Your task to perform on an android device: uninstall "Walmart Shopping & Grocery" Image 0: 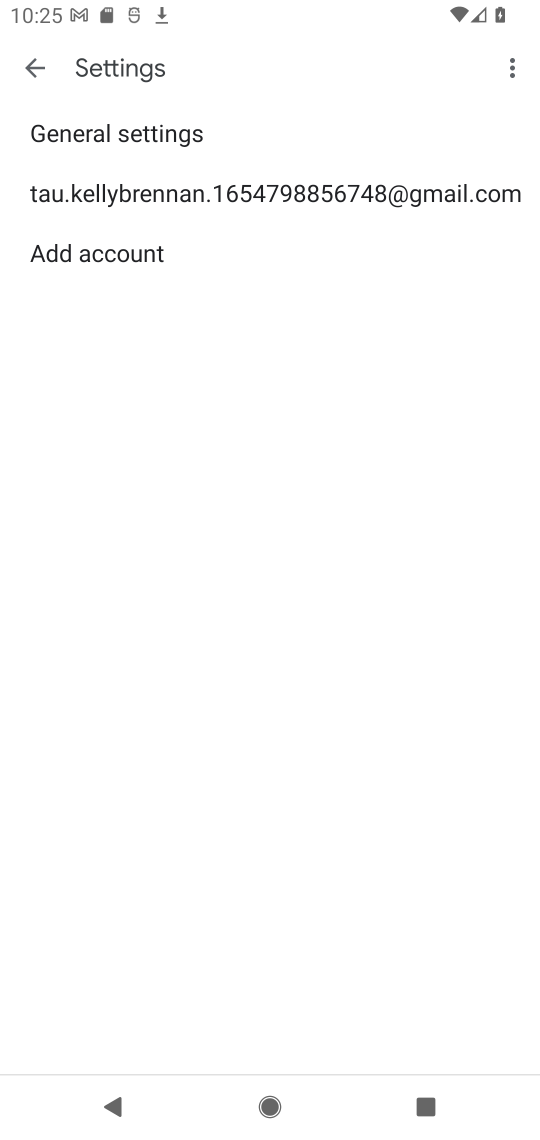
Step 0: press home button
Your task to perform on an android device: uninstall "Walmart Shopping & Grocery" Image 1: 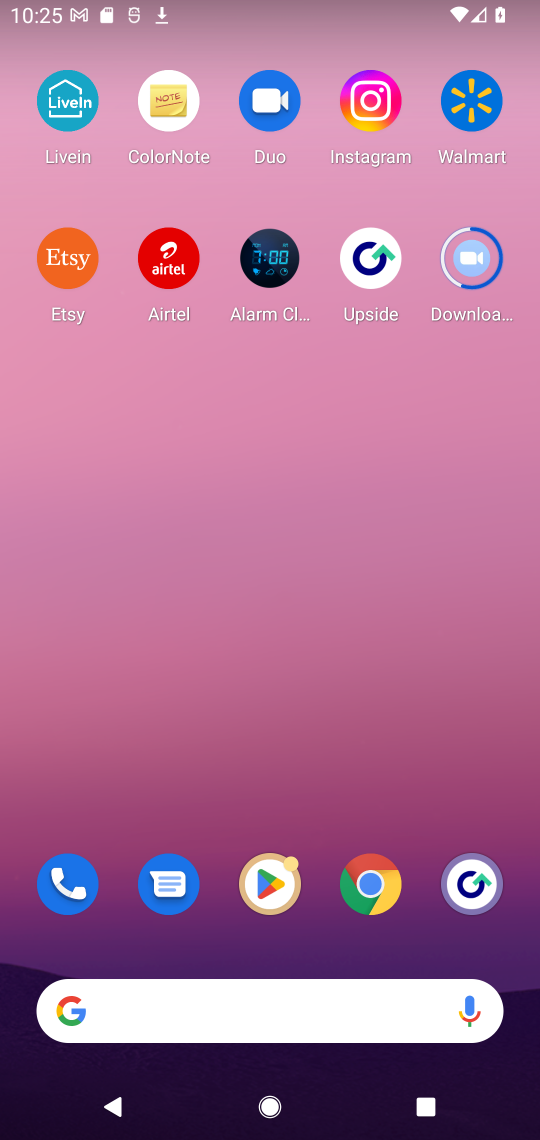
Step 1: click (288, 880)
Your task to perform on an android device: uninstall "Walmart Shopping & Grocery" Image 2: 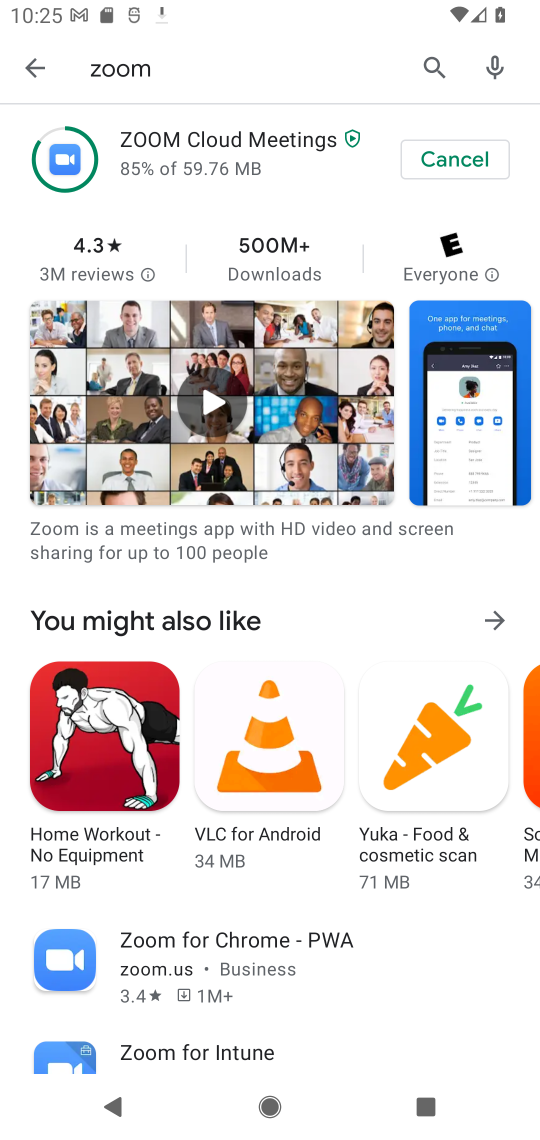
Step 2: click (426, 85)
Your task to perform on an android device: uninstall "Walmart Shopping & Grocery" Image 3: 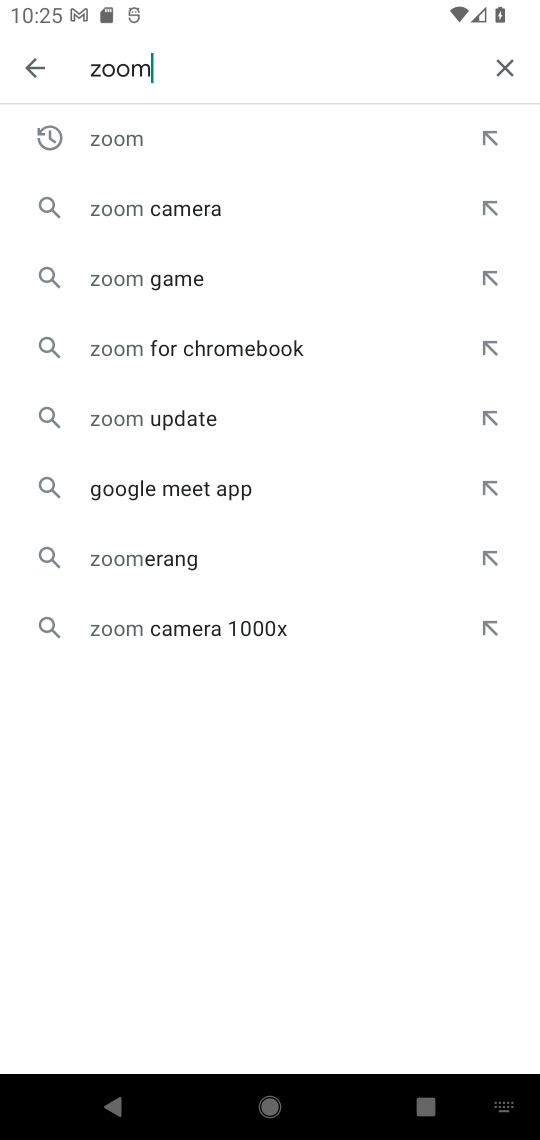
Step 3: click (502, 70)
Your task to perform on an android device: uninstall "Walmart Shopping & Grocery" Image 4: 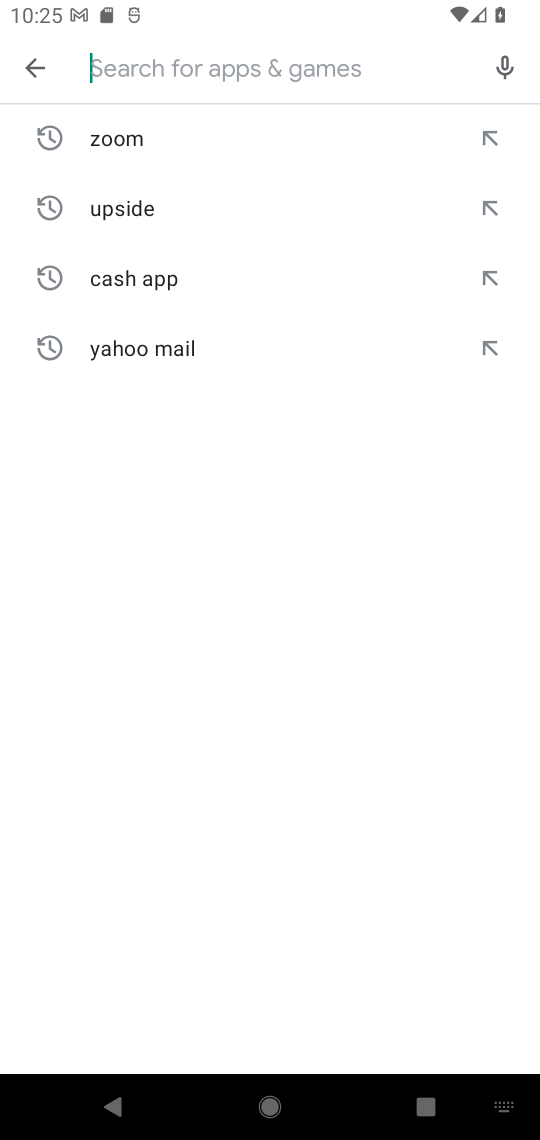
Step 4: type "walmart"
Your task to perform on an android device: uninstall "Walmart Shopping & Grocery" Image 5: 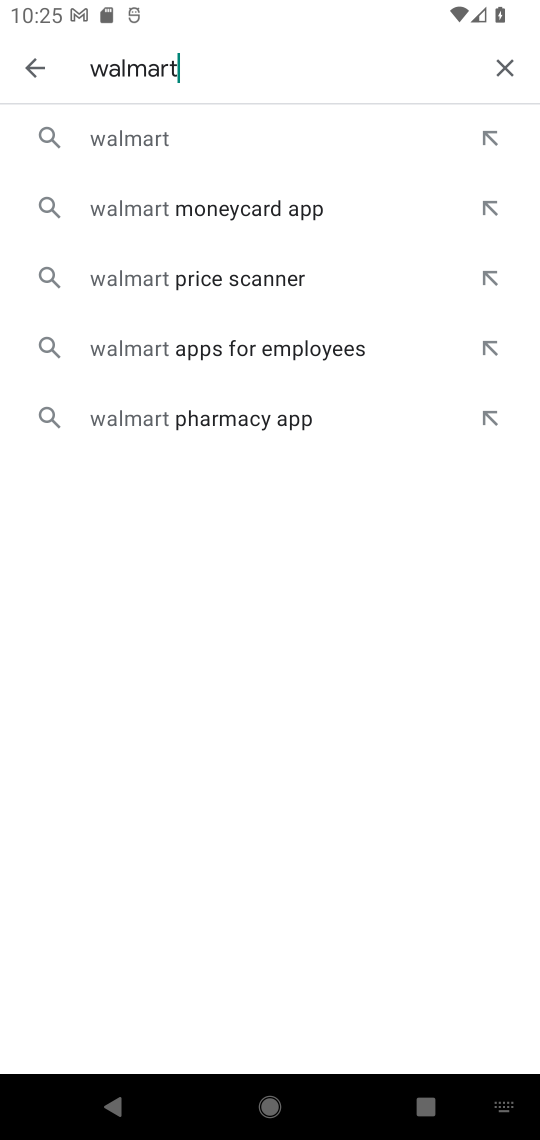
Step 5: click (291, 125)
Your task to perform on an android device: uninstall "Walmart Shopping & Grocery" Image 6: 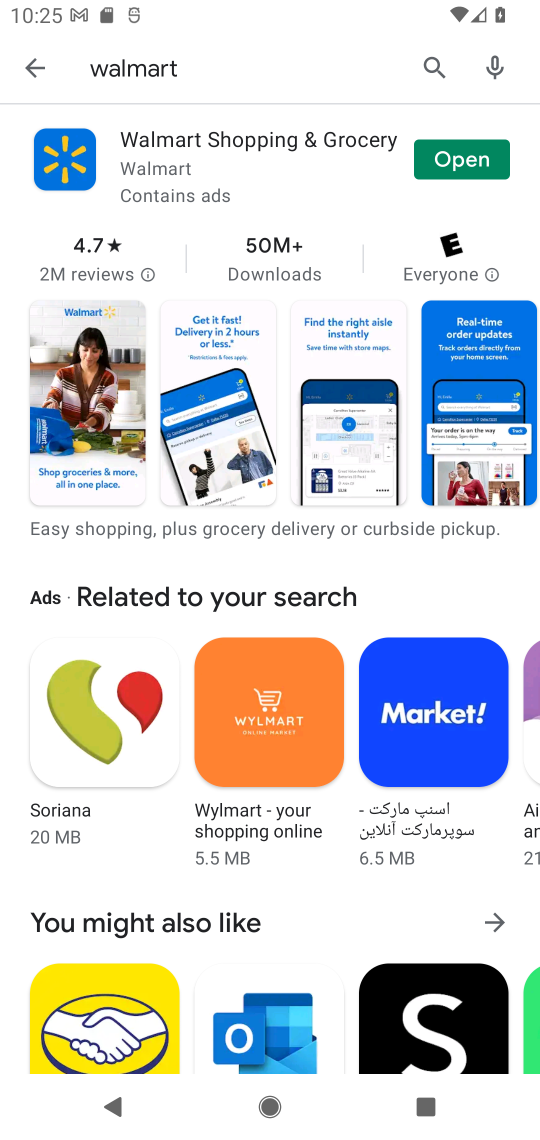
Step 6: click (456, 173)
Your task to perform on an android device: uninstall "Walmart Shopping & Grocery" Image 7: 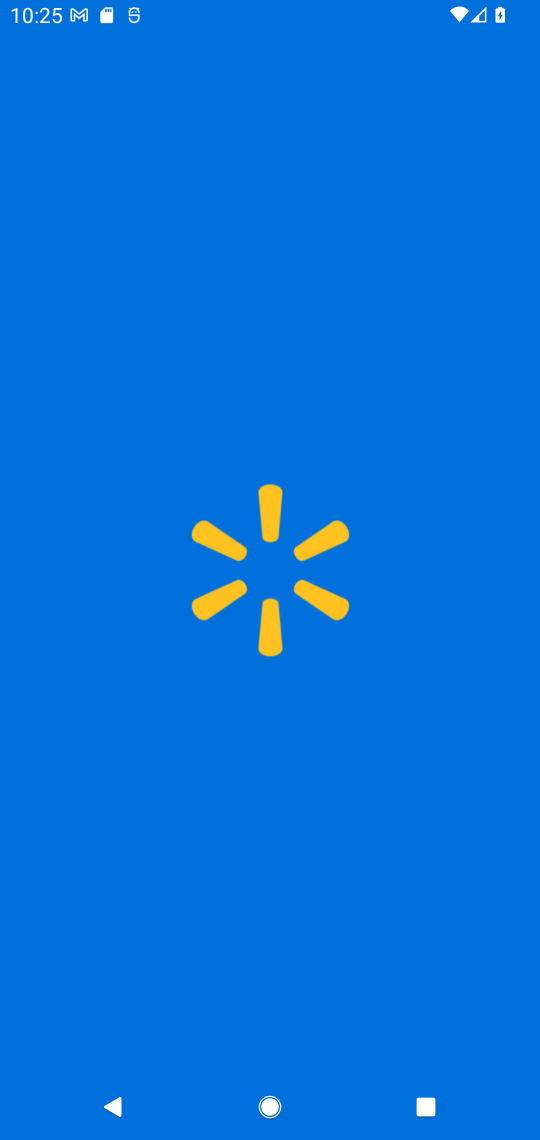
Step 7: task complete